Your task to perform on an android device: Go to ESPN.com Image 0: 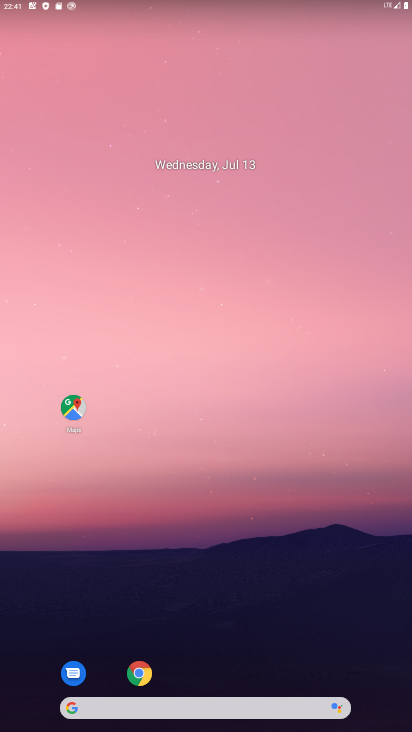
Step 0: click (233, 140)
Your task to perform on an android device: Go to ESPN.com Image 1: 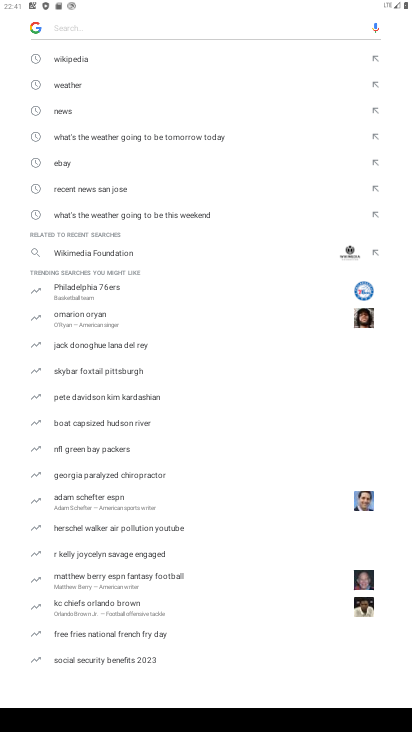
Step 1: press home button
Your task to perform on an android device: Go to ESPN.com Image 2: 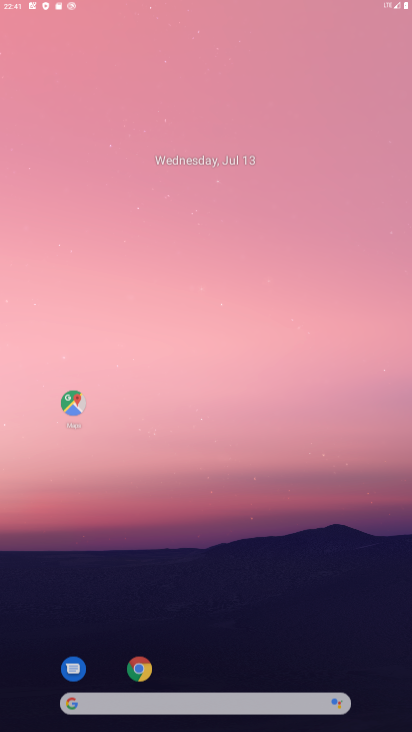
Step 2: drag from (186, 612) to (274, 111)
Your task to perform on an android device: Go to ESPN.com Image 3: 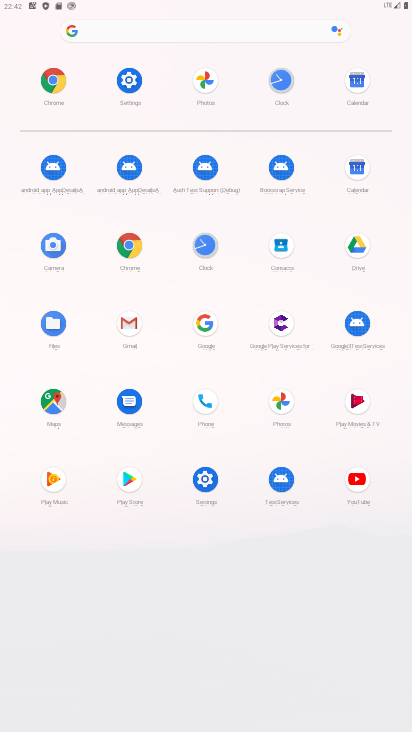
Step 3: click (129, 247)
Your task to perform on an android device: Go to ESPN.com Image 4: 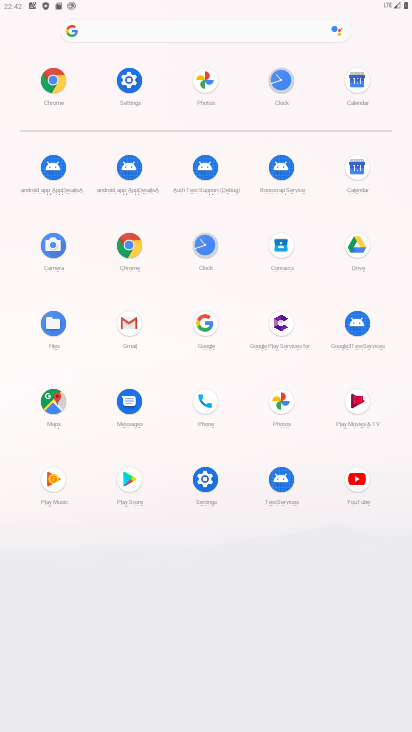
Step 4: click (129, 247)
Your task to perform on an android device: Go to ESPN.com Image 5: 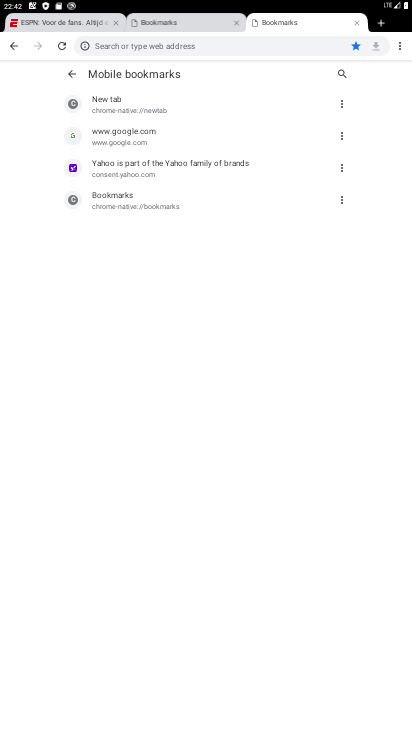
Step 5: drag from (192, 424) to (268, 283)
Your task to perform on an android device: Go to ESPN.com Image 6: 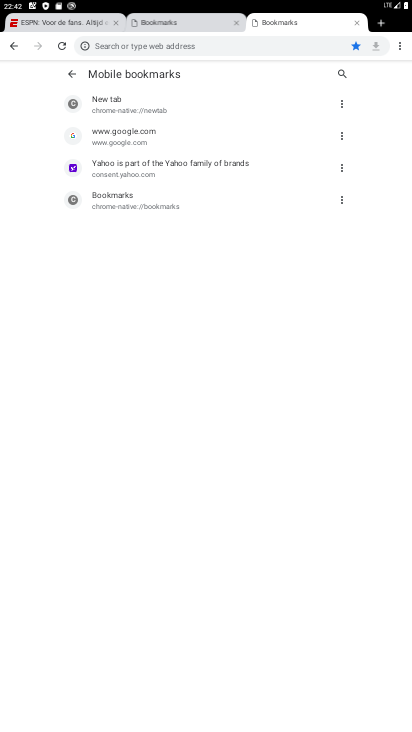
Step 6: press home button
Your task to perform on an android device: Go to ESPN.com Image 7: 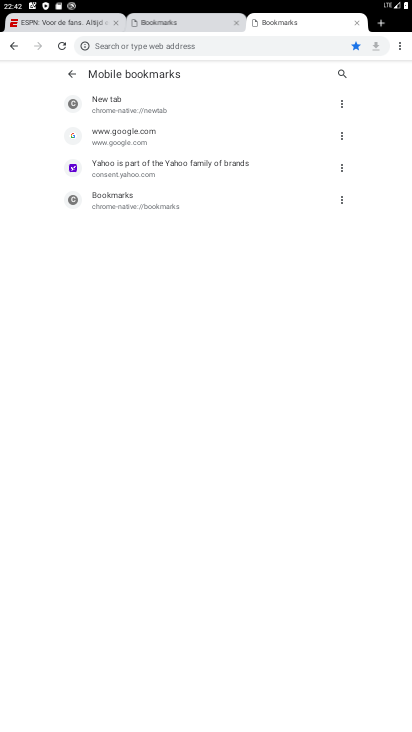
Step 7: drag from (178, 534) to (104, 0)
Your task to perform on an android device: Go to ESPN.com Image 8: 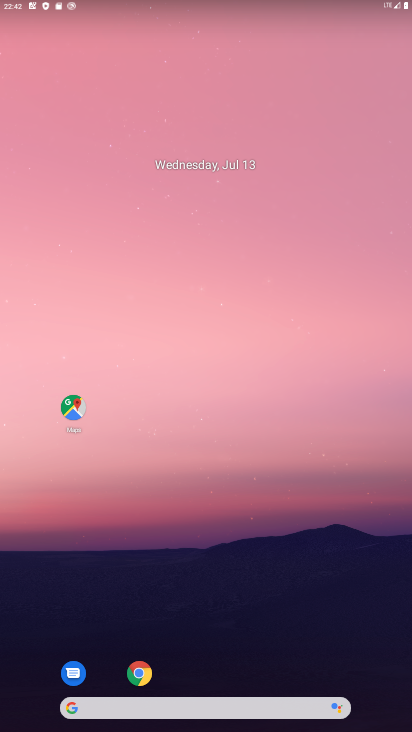
Step 8: drag from (193, 648) to (217, 137)
Your task to perform on an android device: Go to ESPN.com Image 9: 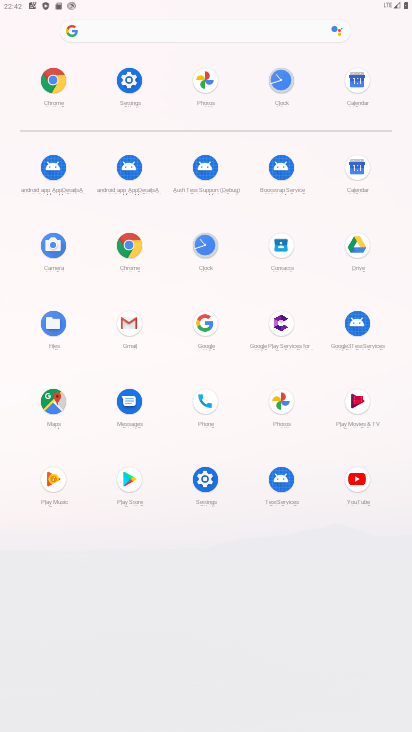
Step 9: click (168, 21)
Your task to perform on an android device: Go to ESPN.com Image 10: 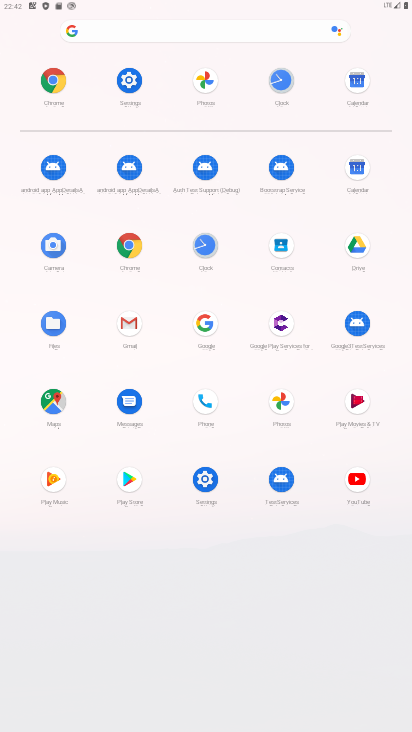
Step 10: click (152, 31)
Your task to perform on an android device: Go to ESPN.com Image 11: 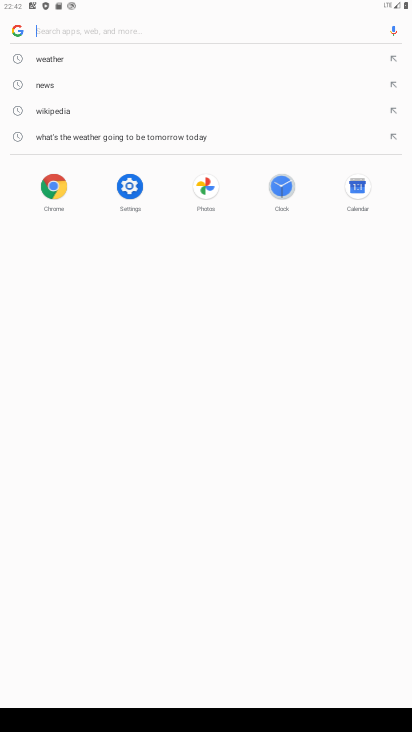
Step 11: type "espn"
Your task to perform on an android device: Go to ESPN.com Image 12: 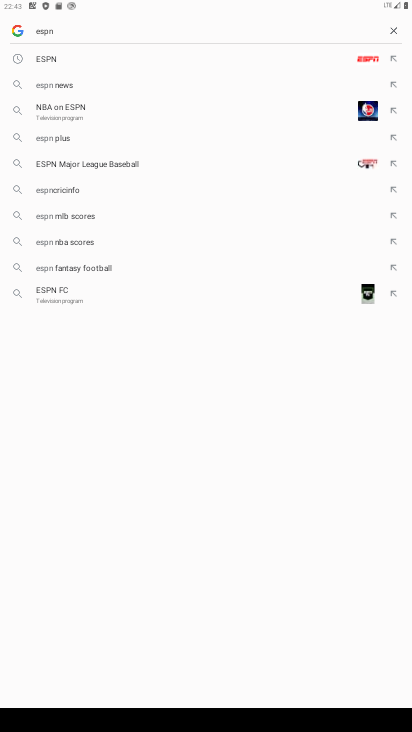
Step 12: click (73, 56)
Your task to perform on an android device: Go to ESPN.com Image 13: 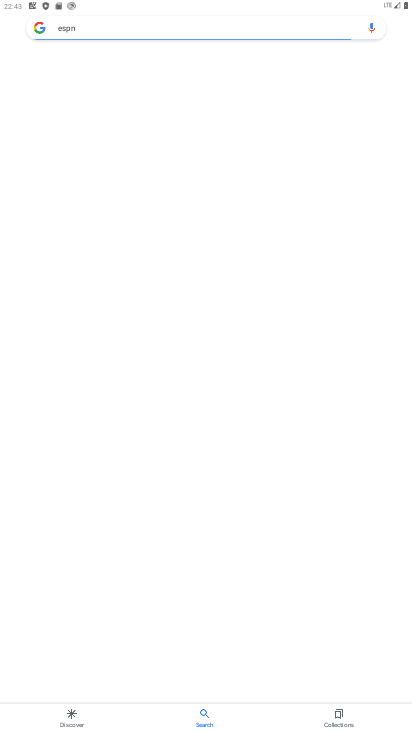
Step 13: task complete